Your task to perform on an android device: add a contact in the contacts app Image 0: 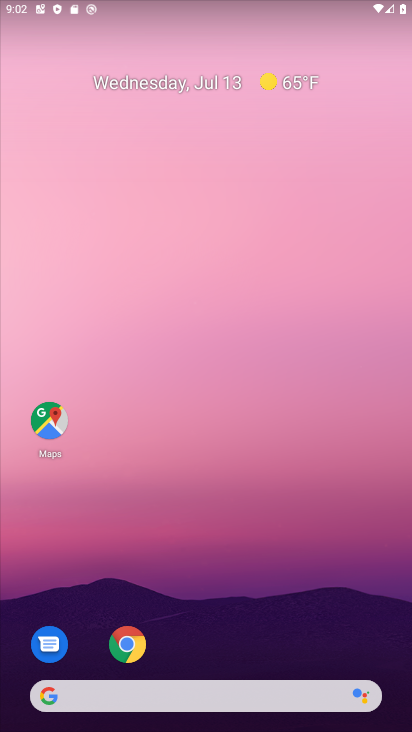
Step 0: drag from (222, 519) to (159, 109)
Your task to perform on an android device: add a contact in the contacts app Image 1: 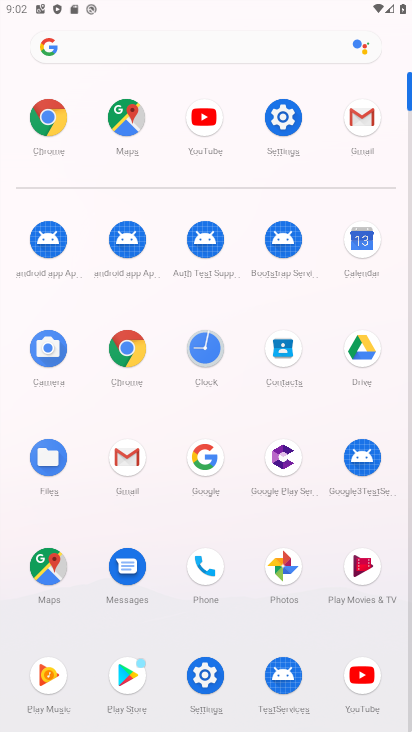
Step 1: click (216, 582)
Your task to perform on an android device: add a contact in the contacts app Image 2: 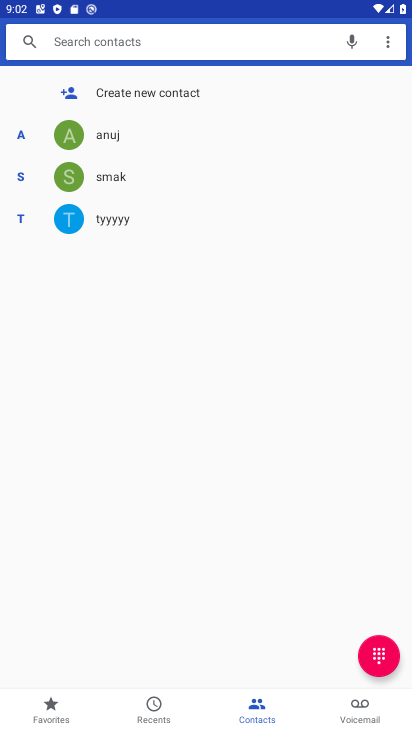
Step 2: click (110, 90)
Your task to perform on an android device: add a contact in the contacts app Image 3: 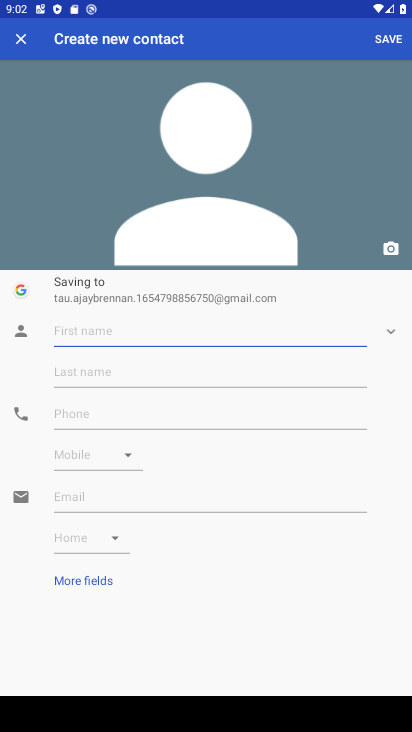
Step 3: type "ghhhhh"
Your task to perform on an android device: add a contact in the contacts app Image 4: 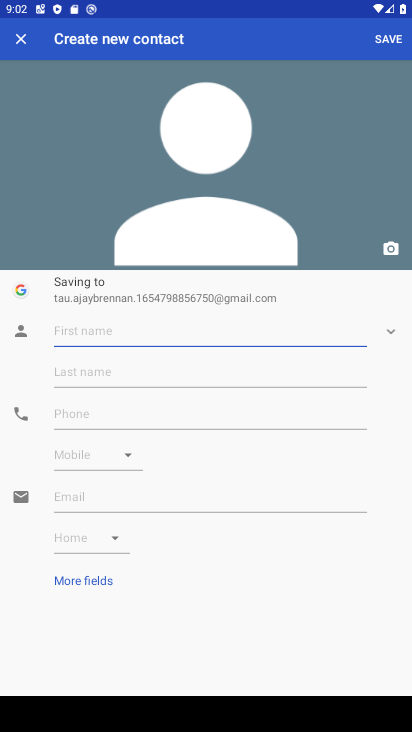
Step 4: click (123, 414)
Your task to perform on an android device: add a contact in the contacts app Image 5: 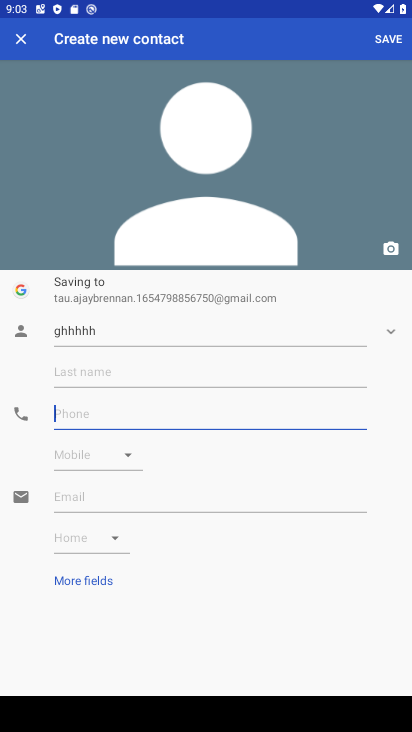
Step 5: type "56787656"
Your task to perform on an android device: add a contact in the contacts app Image 6: 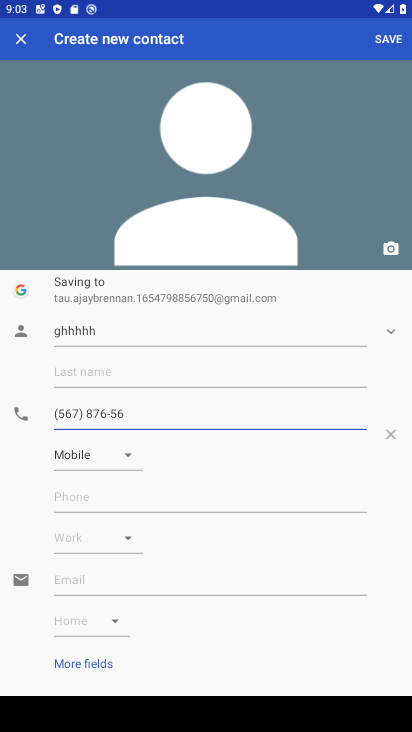
Step 6: click (388, 40)
Your task to perform on an android device: add a contact in the contacts app Image 7: 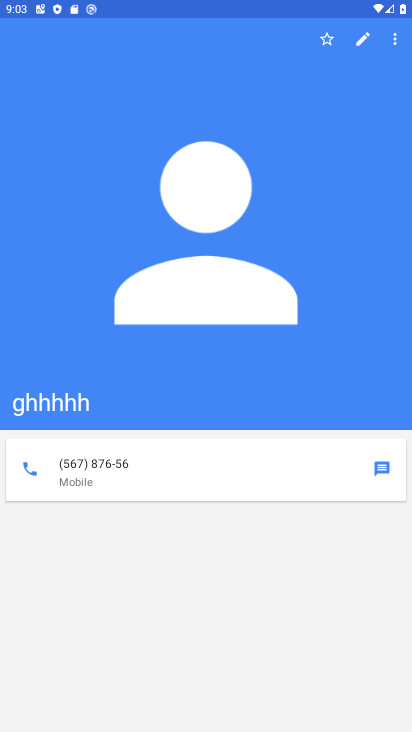
Step 7: task complete